Your task to perform on an android device: set an alarm Image 0: 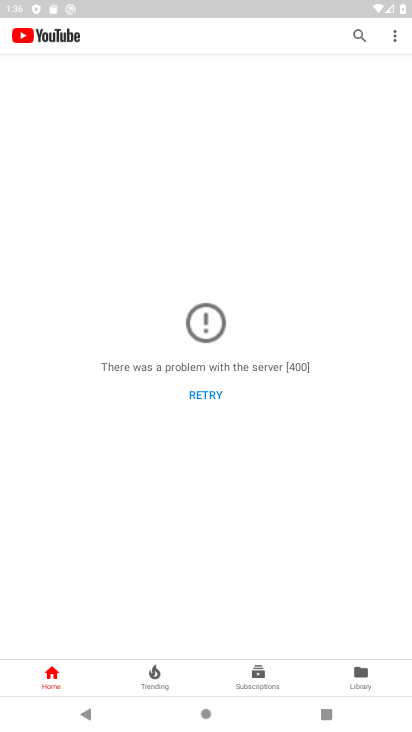
Step 0: press home button
Your task to perform on an android device: set an alarm Image 1: 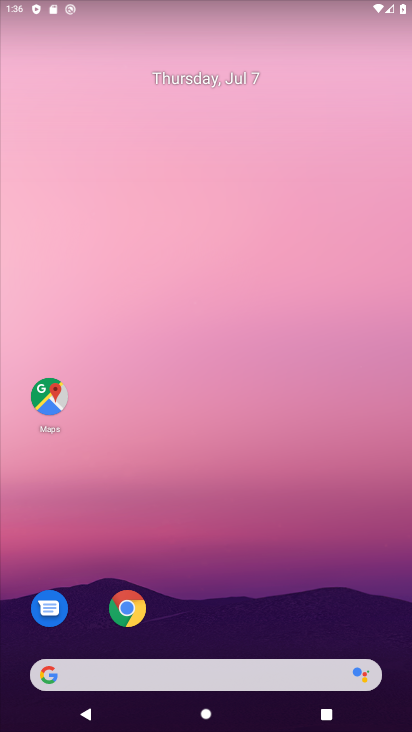
Step 1: drag from (233, 712) to (217, 99)
Your task to perform on an android device: set an alarm Image 2: 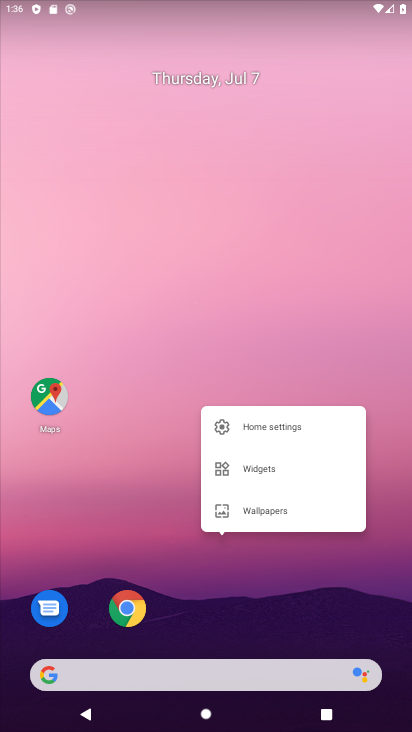
Step 2: click (290, 304)
Your task to perform on an android device: set an alarm Image 3: 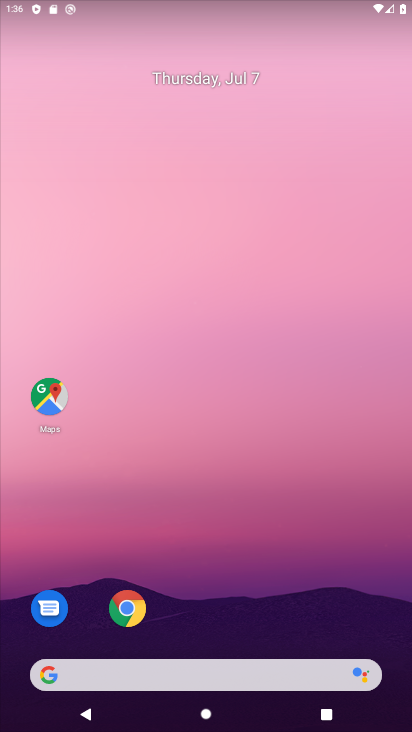
Step 3: drag from (246, 722) to (232, 179)
Your task to perform on an android device: set an alarm Image 4: 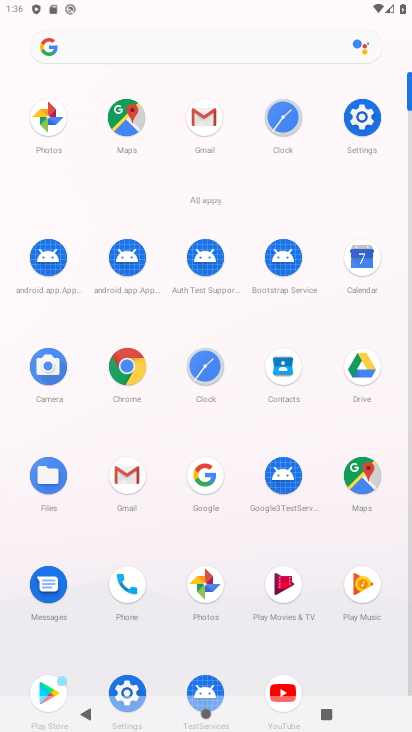
Step 4: click (207, 366)
Your task to perform on an android device: set an alarm Image 5: 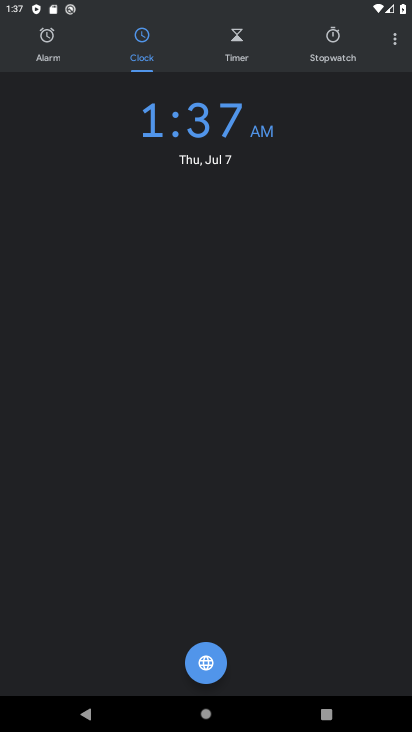
Step 5: click (46, 33)
Your task to perform on an android device: set an alarm Image 6: 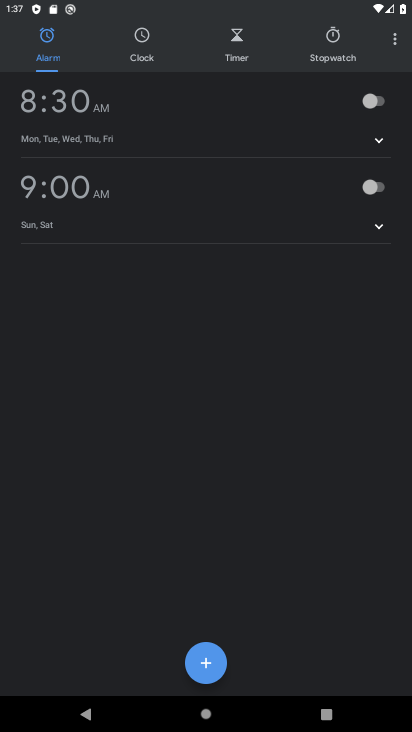
Step 6: click (204, 661)
Your task to perform on an android device: set an alarm Image 7: 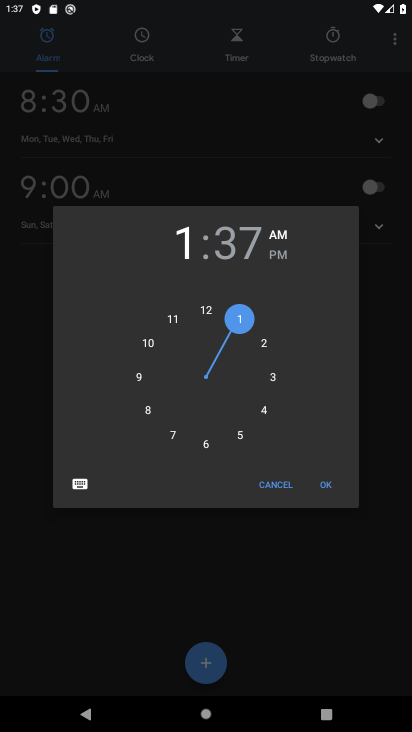
Step 7: click (209, 445)
Your task to perform on an android device: set an alarm Image 8: 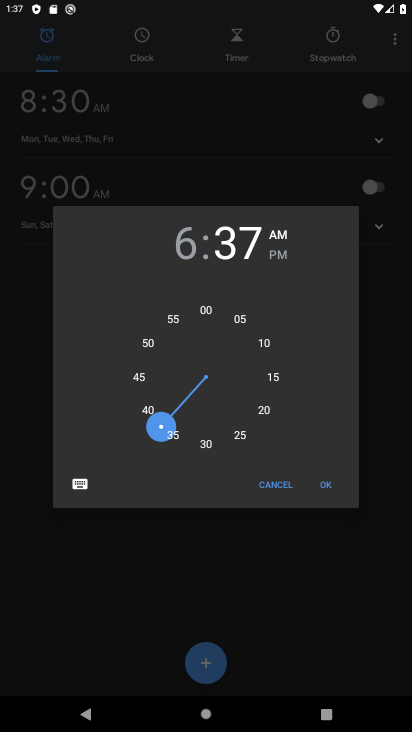
Step 8: click (327, 482)
Your task to perform on an android device: set an alarm Image 9: 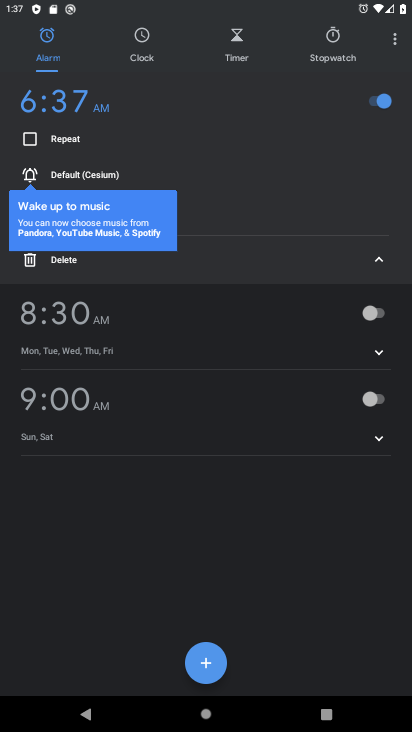
Step 9: task complete